Your task to perform on an android device: Open network settings Image 0: 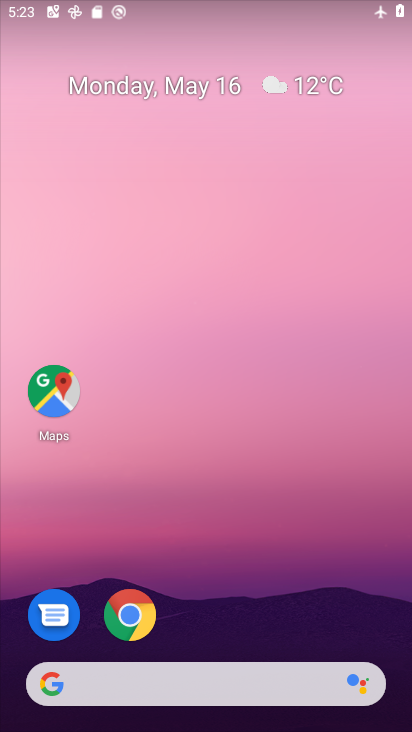
Step 0: drag from (235, 629) to (258, 132)
Your task to perform on an android device: Open network settings Image 1: 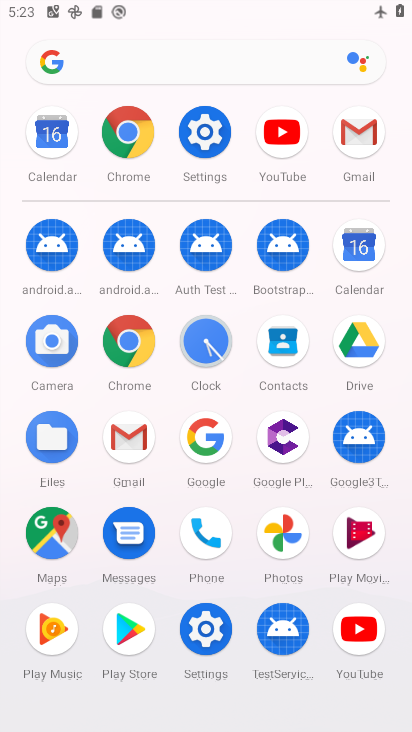
Step 1: click (203, 145)
Your task to perform on an android device: Open network settings Image 2: 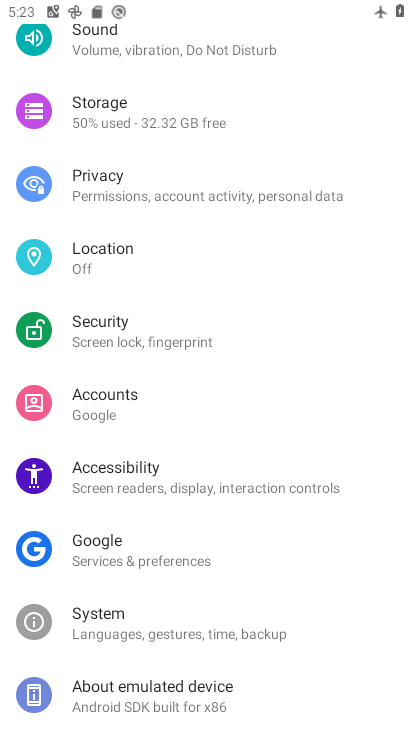
Step 2: drag from (199, 165) to (146, 510)
Your task to perform on an android device: Open network settings Image 3: 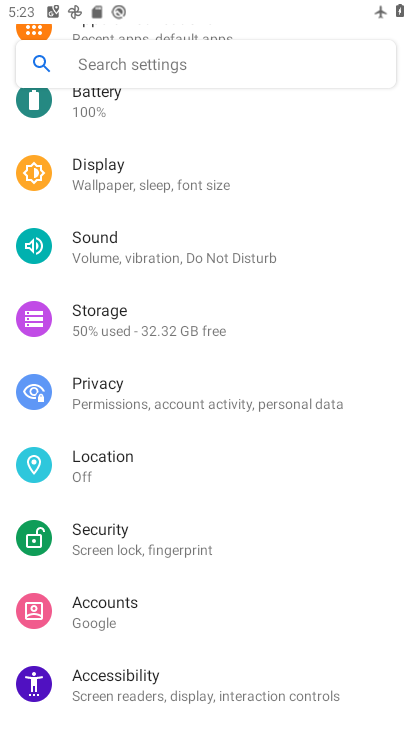
Step 3: drag from (199, 197) to (147, 651)
Your task to perform on an android device: Open network settings Image 4: 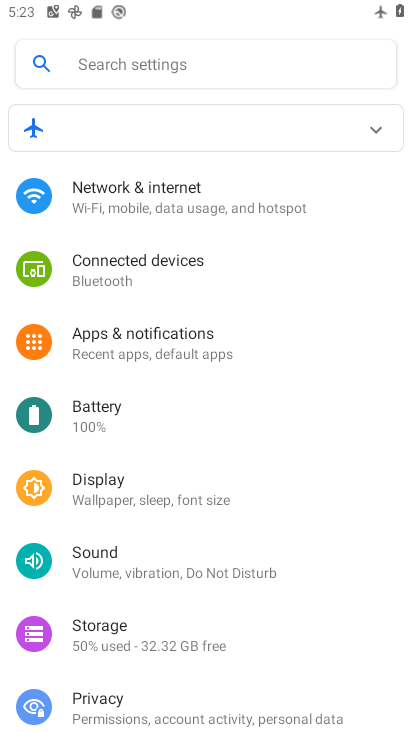
Step 4: click (157, 187)
Your task to perform on an android device: Open network settings Image 5: 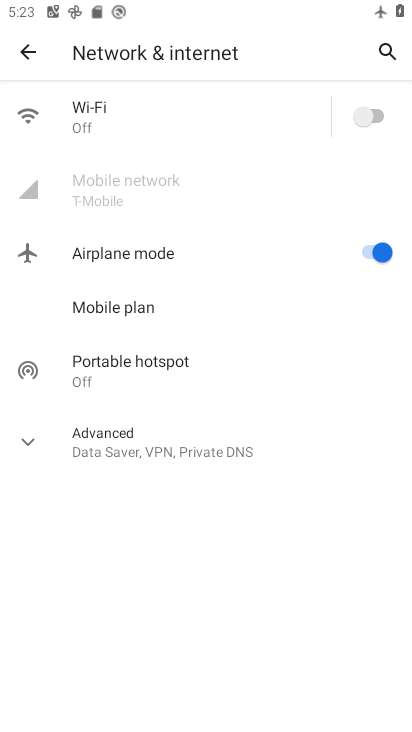
Step 5: task complete